Your task to perform on an android device: delete location history Image 0: 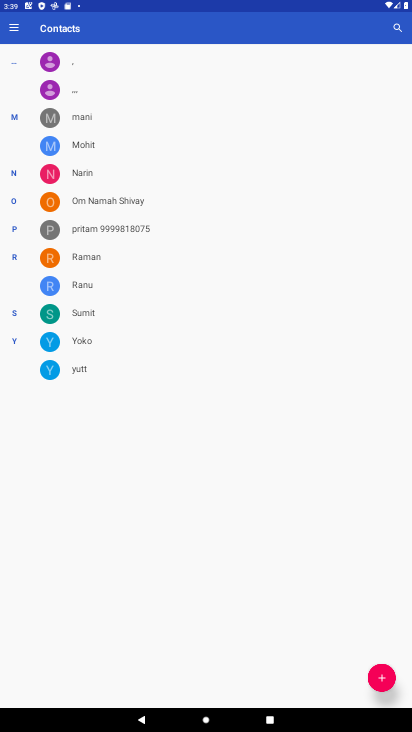
Step 0: press home button
Your task to perform on an android device: delete location history Image 1: 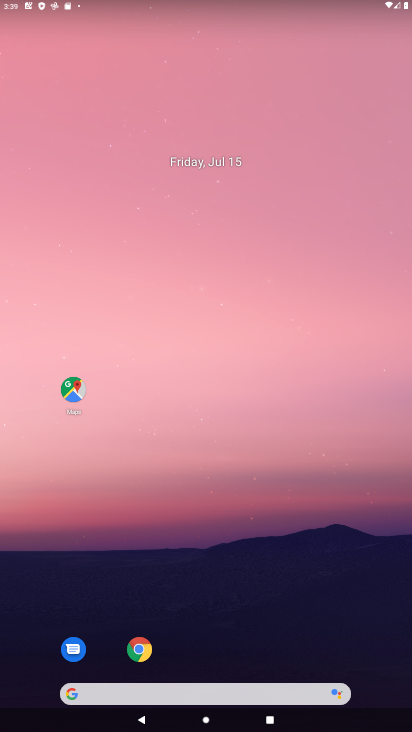
Step 1: drag from (277, 638) to (245, 75)
Your task to perform on an android device: delete location history Image 2: 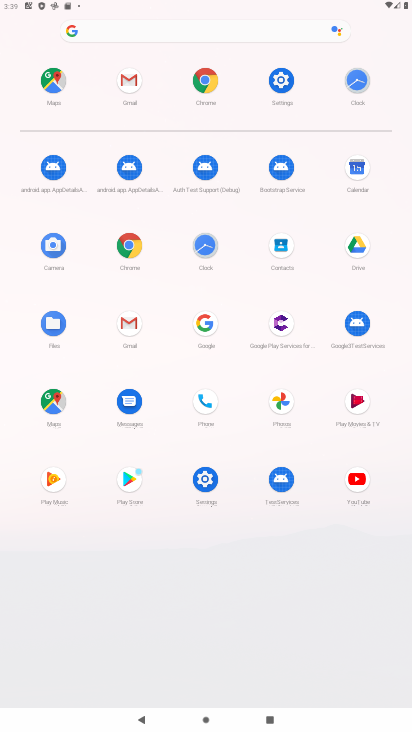
Step 2: click (45, 78)
Your task to perform on an android device: delete location history Image 3: 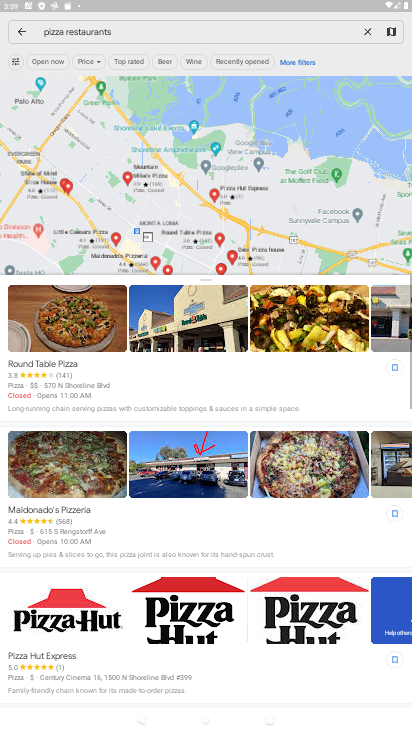
Step 3: click (22, 33)
Your task to perform on an android device: delete location history Image 4: 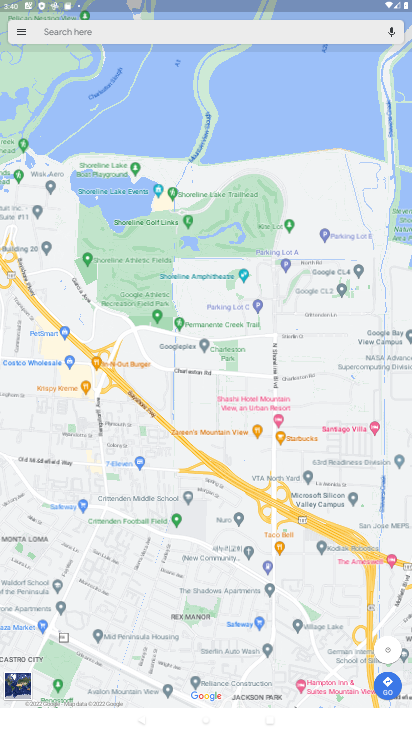
Step 4: click (15, 26)
Your task to perform on an android device: delete location history Image 5: 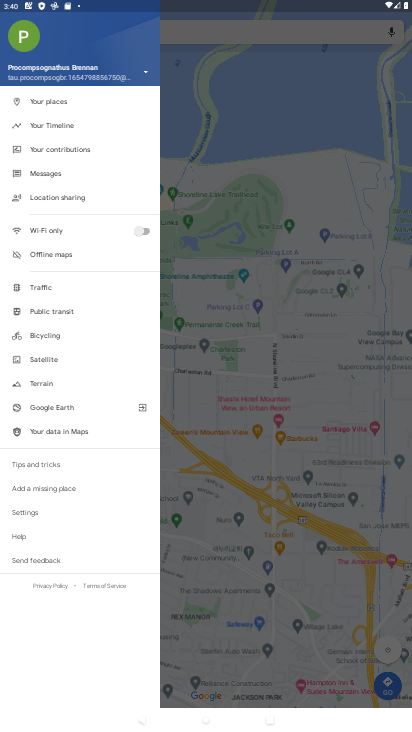
Step 5: click (31, 513)
Your task to perform on an android device: delete location history Image 6: 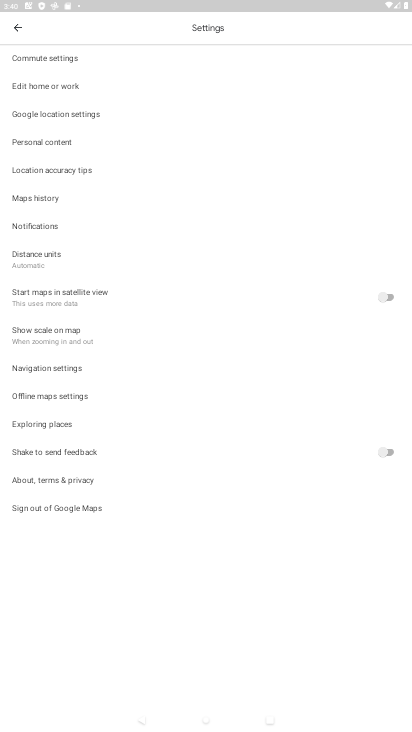
Step 6: click (45, 191)
Your task to perform on an android device: delete location history Image 7: 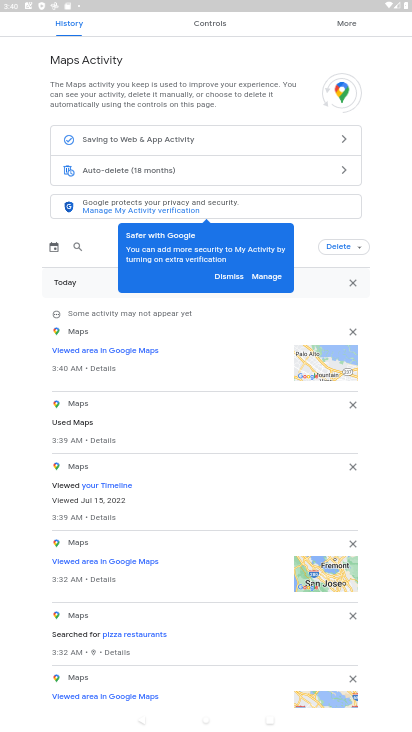
Step 7: click (364, 241)
Your task to perform on an android device: delete location history Image 8: 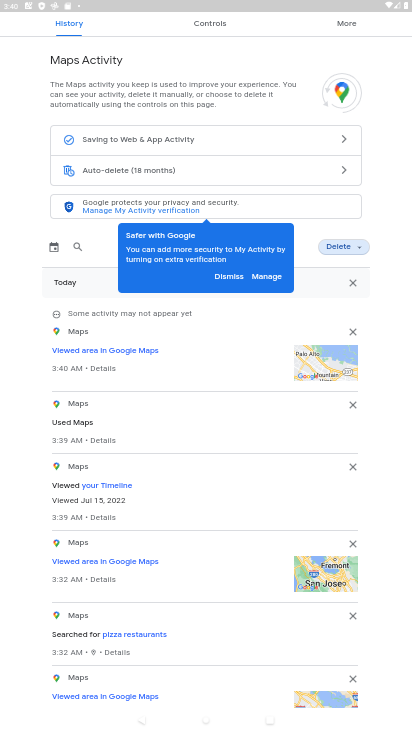
Step 8: click (359, 249)
Your task to perform on an android device: delete location history Image 9: 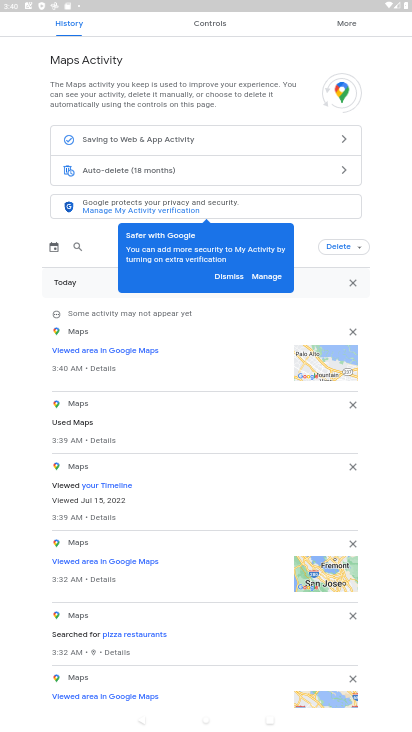
Step 9: click (359, 249)
Your task to perform on an android device: delete location history Image 10: 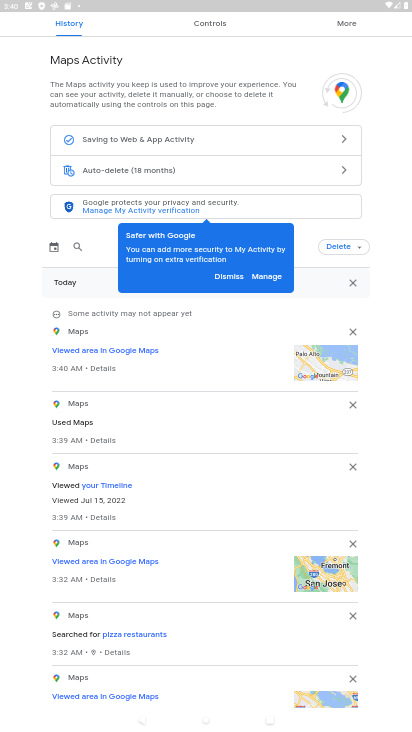
Step 10: click (359, 248)
Your task to perform on an android device: delete location history Image 11: 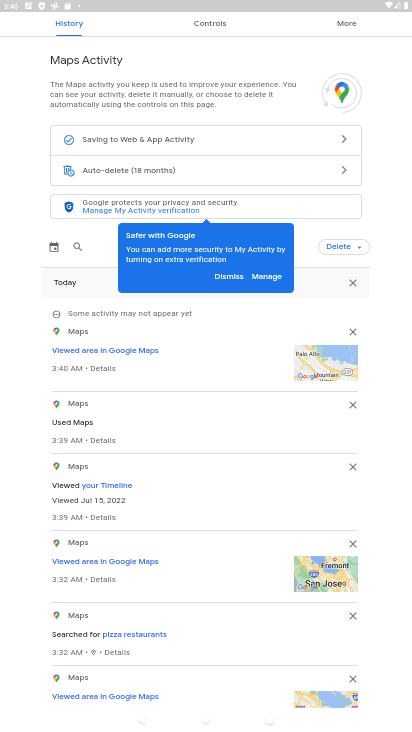
Step 11: click (344, 245)
Your task to perform on an android device: delete location history Image 12: 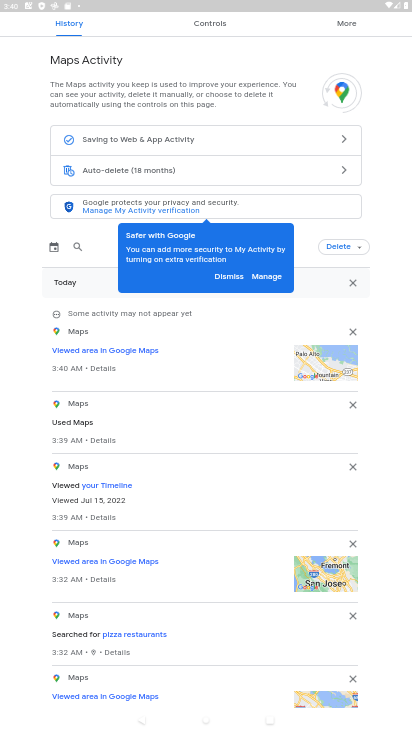
Step 12: click (360, 246)
Your task to perform on an android device: delete location history Image 13: 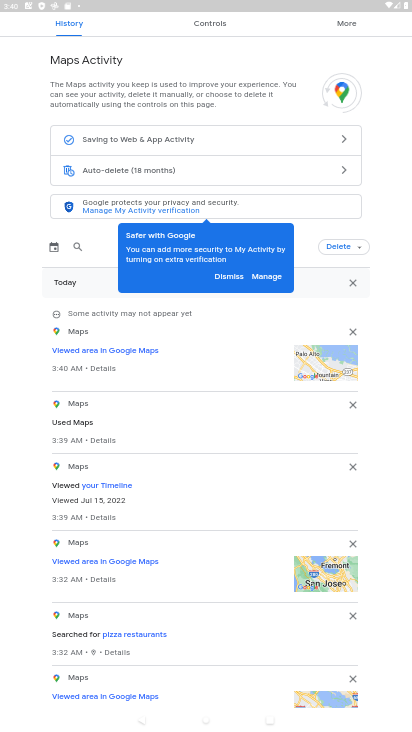
Step 13: click (365, 245)
Your task to perform on an android device: delete location history Image 14: 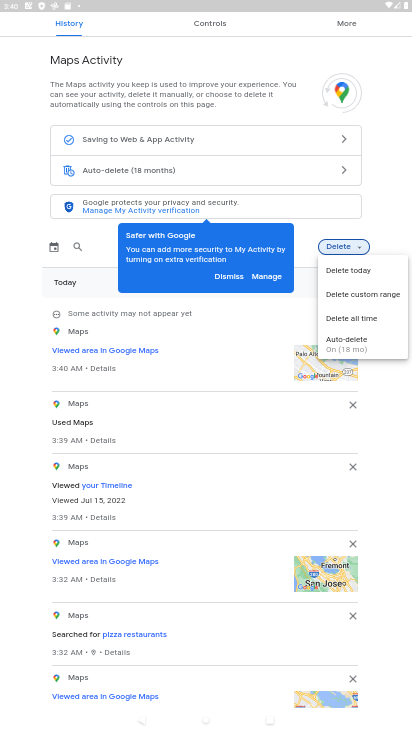
Step 14: click (362, 320)
Your task to perform on an android device: delete location history Image 15: 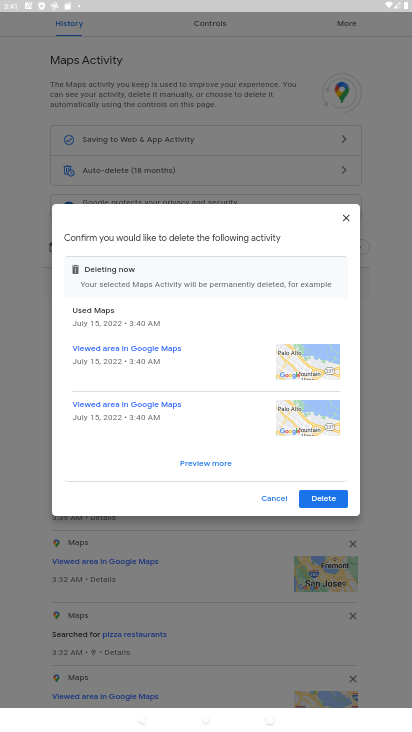
Step 15: click (340, 495)
Your task to perform on an android device: delete location history Image 16: 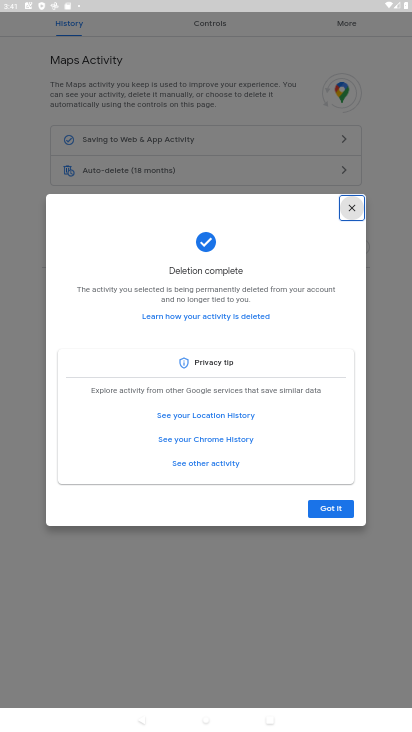
Step 16: task complete